Your task to perform on an android device: Open Chrome and go to the settings page Image 0: 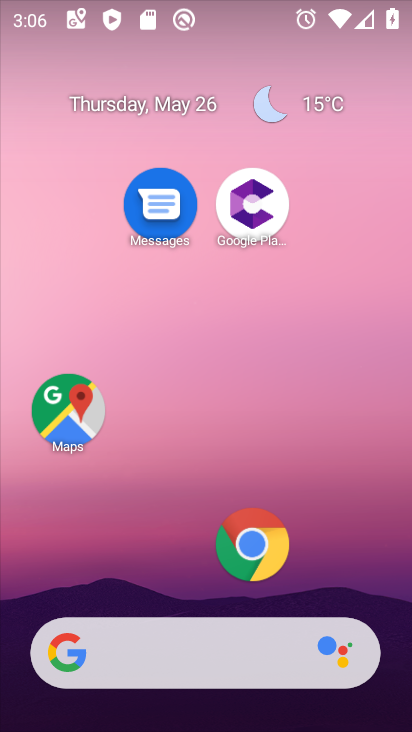
Step 0: click (144, 609)
Your task to perform on an android device: Open Chrome and go to the settings page Image 1: 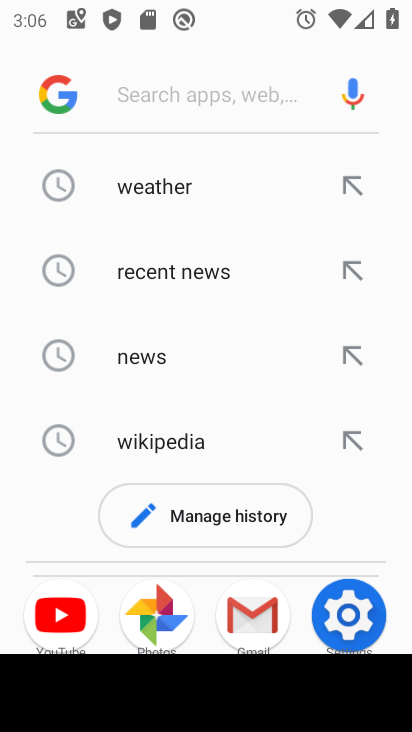
Step 1: press home button
Your task to perform on an android device: Open Chrome and go to the settings page Image 2: 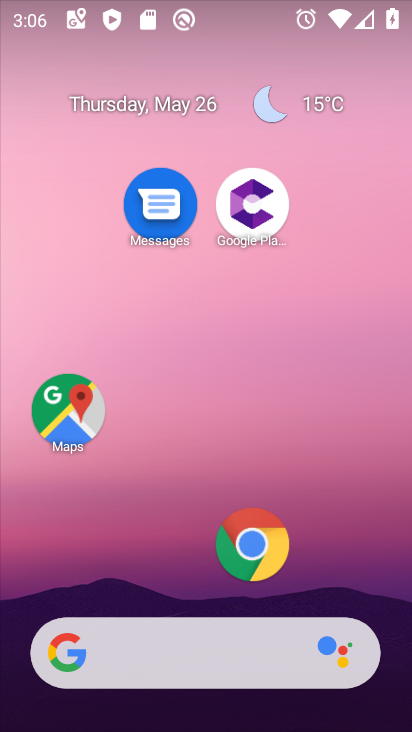
Step 2: click (272, 541)
Your task to perform on an android device: Open Chrome and go to the settings page Image 3: 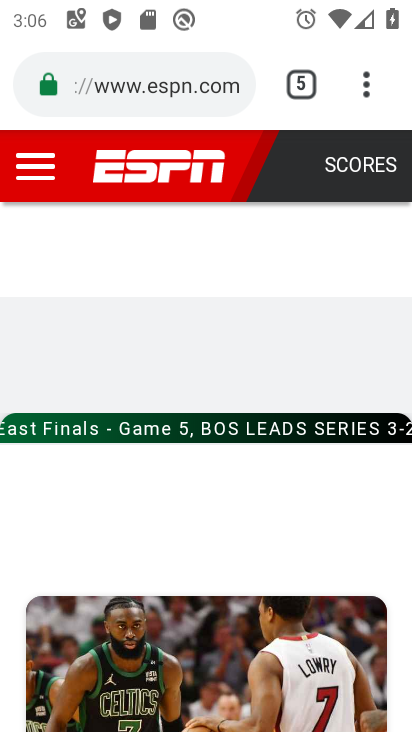
Step 3: click (384, 68)
Your task to perform on an android device: Open Chrome and go to the settings page Image 4: 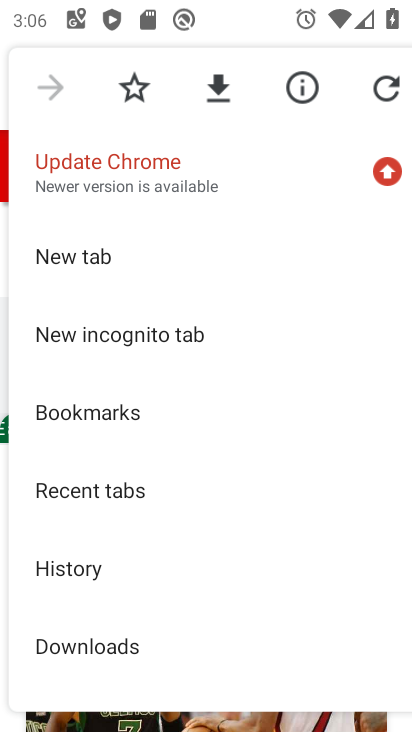
Step 4: drag from (134, 603) to (177, 219)
Your task to perform on an android device: Open Chrome and go to the settings page Image 5: 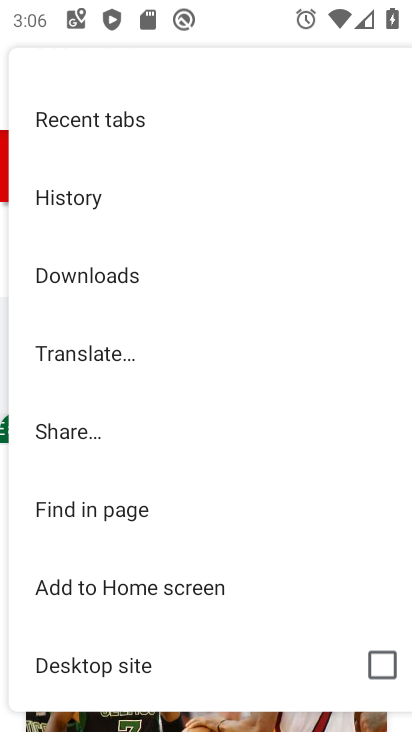
Step 5: drag from (85, 650) to (165, 181)
Your task to perform on an android device: Open Chrome and go to the settings page Image 6: 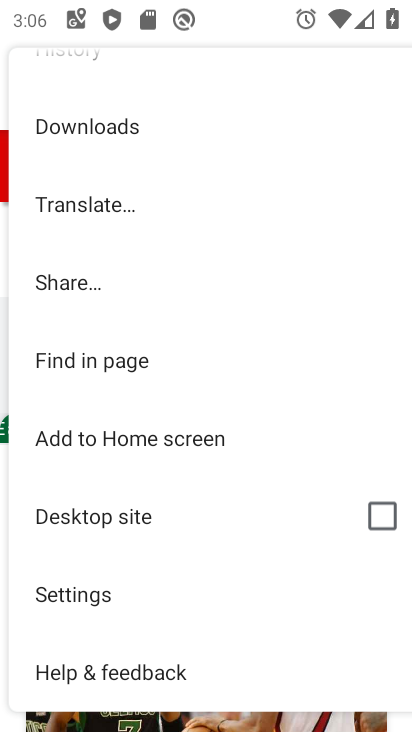
Step 6: click (69, 603)
Your task to perform on an android device: Open Chrome and go to the settings page Image 7: 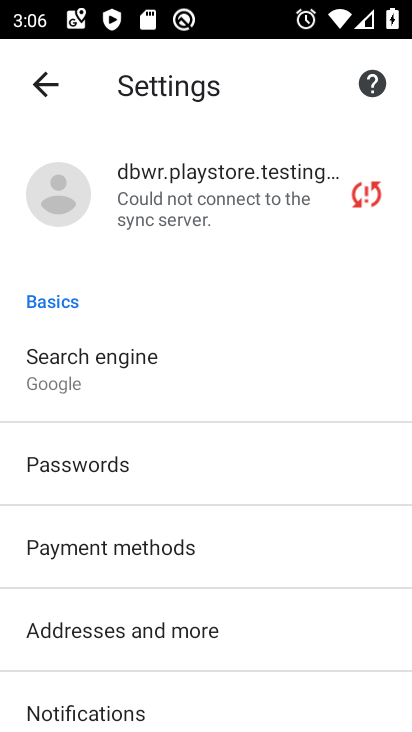
Step 7: task complete